Your task to perform on an android device: Go to Wikipedia Image 0: 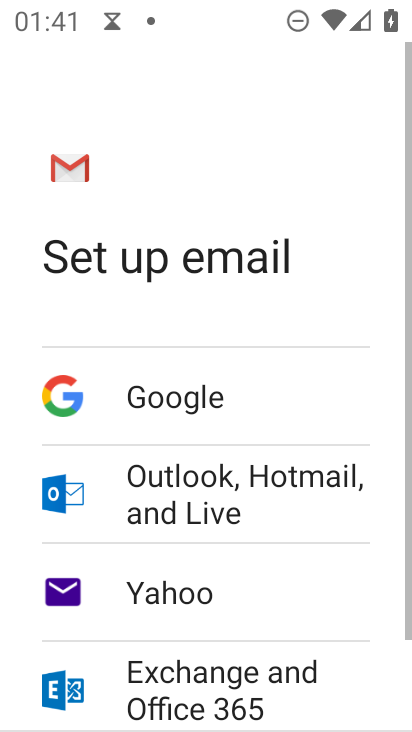
Step 0: press home button
Your task to perform on an android device: Go to Wikipedia Image 1: 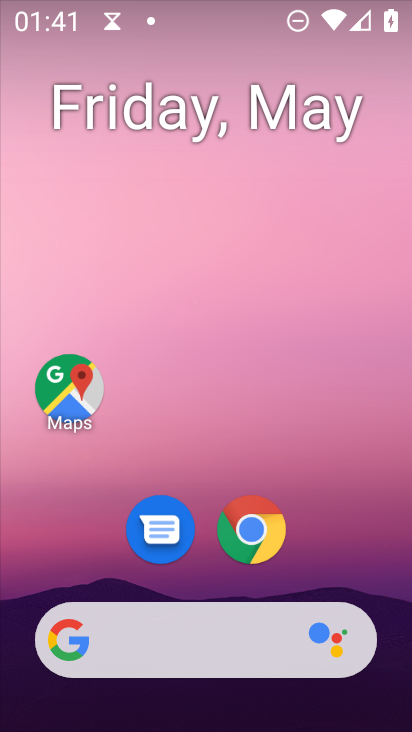
Step 1: drag from (304, 524) to (312, 250)
Your task to perform on an android device: Go to Wikipedia Image 2: 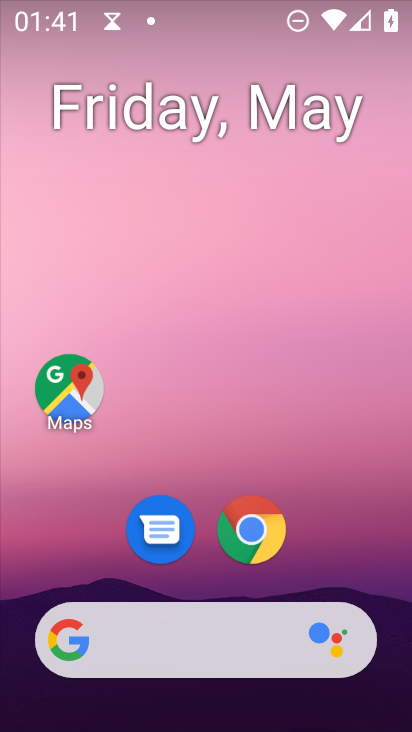
Step 2: drag from (147, 607) to (221, 227)
Your task to perform on an android device: Go to Wikipedia Image 3: 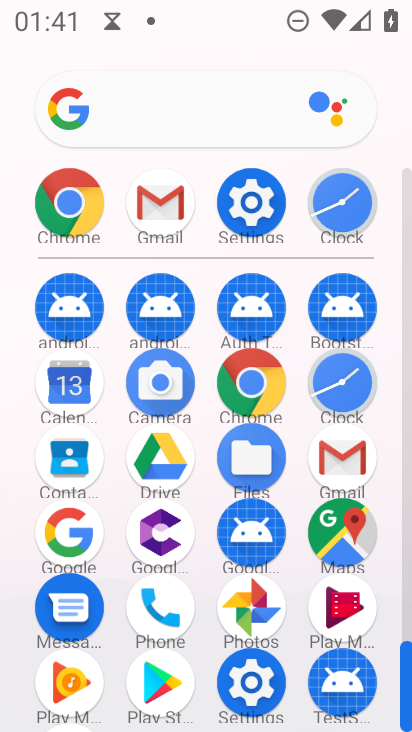
Step 3: click (76, 218)
Your task to perform on an android device: Go to Wikipedia Image 4: 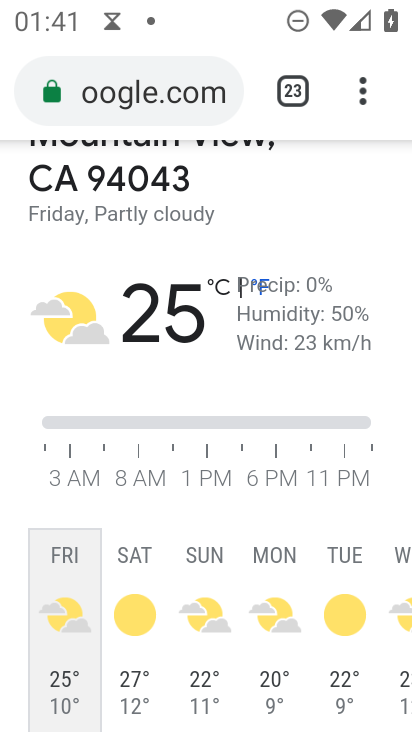
Step 4: click (341, 79)
Your task to perform on an android device: Go to Wikipedia Image 5: 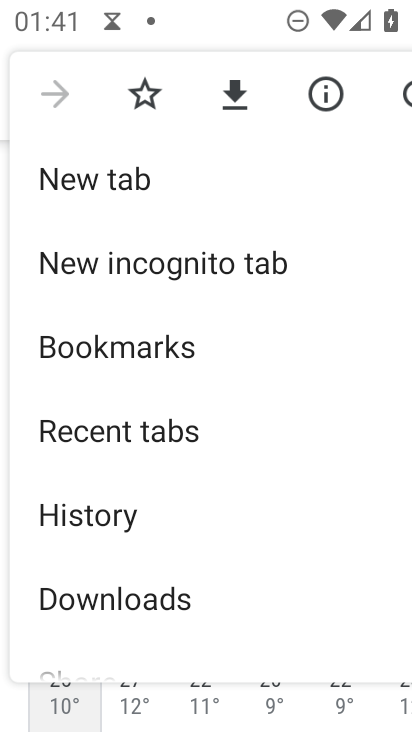
Step 5: click (94, 185)
Your task to perform on an android device: Go to Wikipedia Image 6: 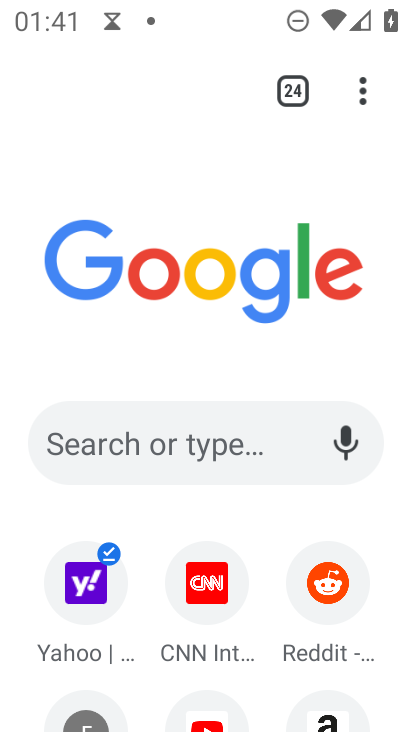
Step 6: drag from (242, 549) to (302, 256)
Your task to perform on an android device: Go to Wikipedia Image 7: 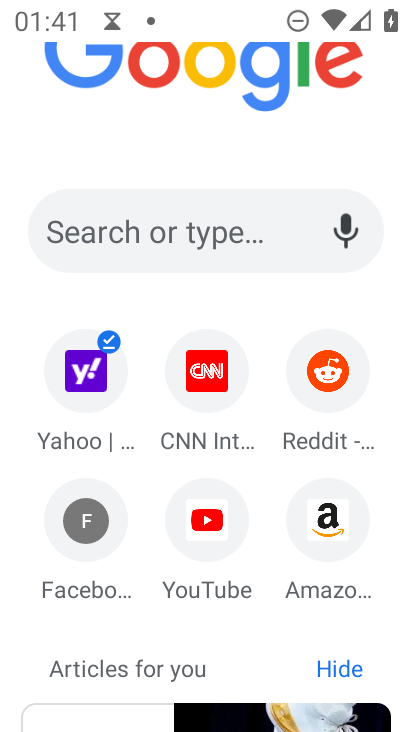
Step 7: click (210, 214)
Your task to perform on an android device: Go to Wikipedia Image 8: 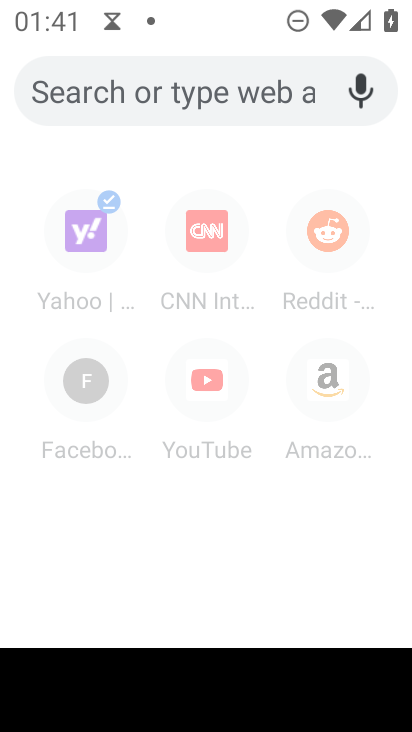
Step 8: type "Wikipedia"
Your task to perform on an android device: Go to Wikipedia Image 9: 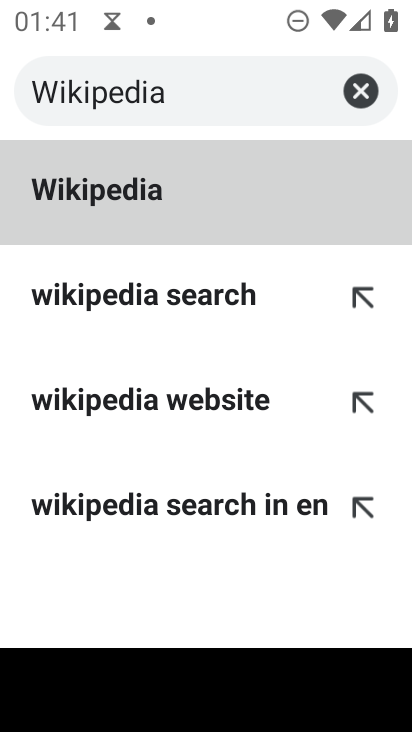
Step 9: click (162, 172)
Your task to perform on an android device: Go to Wikipedia Image 10: 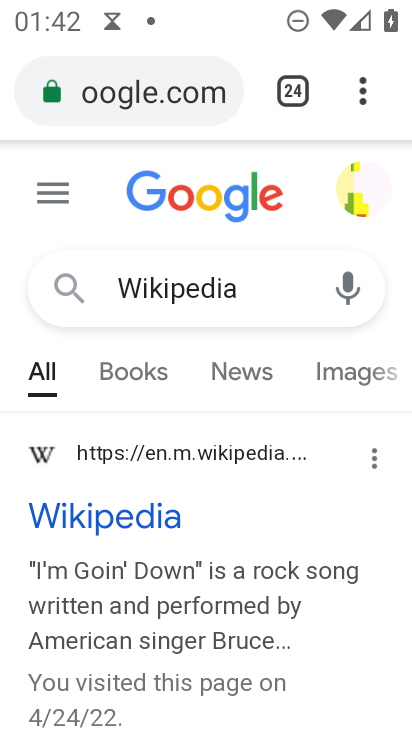
Step 10: task complete